Your task to perform on an android device: Show me productivity apps on the Play Store Image 0: 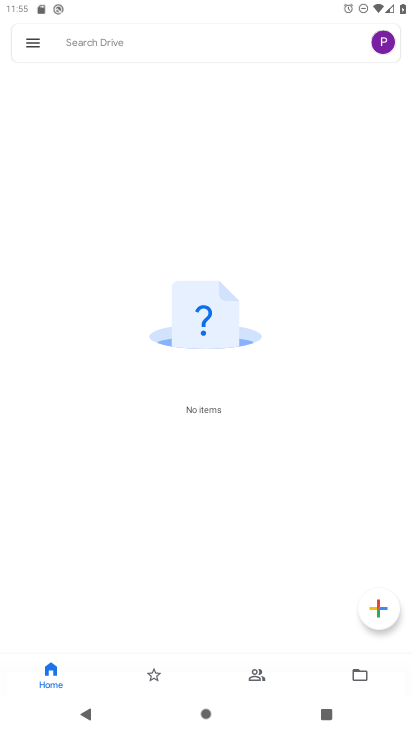
Step 0: press home button
Your task to perform on an android device: Show me productivity apps on the Play Store Image 1: 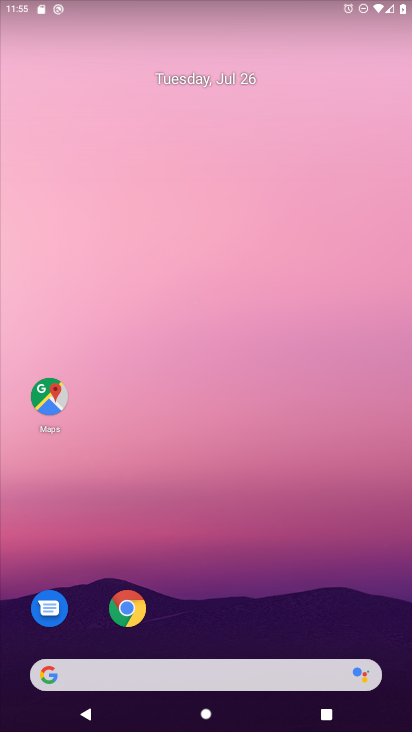
Step 1: drag from (281, 611) to (274, 63)
Your task to perform on an android device: Show me productivity apps on the Play Store Image 2: 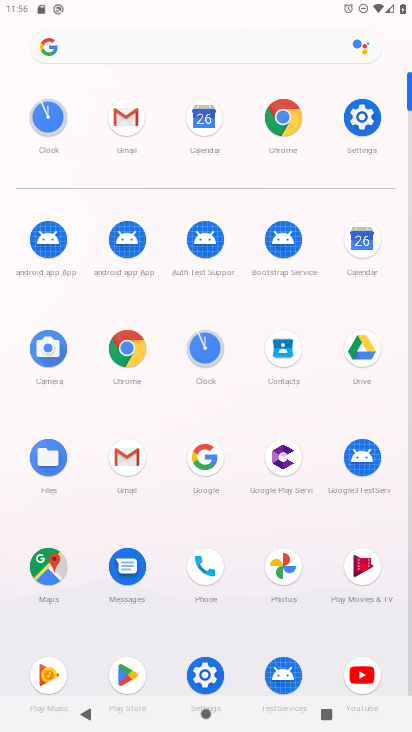
Step 2: click (127, 676)
Your task to perform on an android device: Show me productivity apps on the Play Store Image 3: 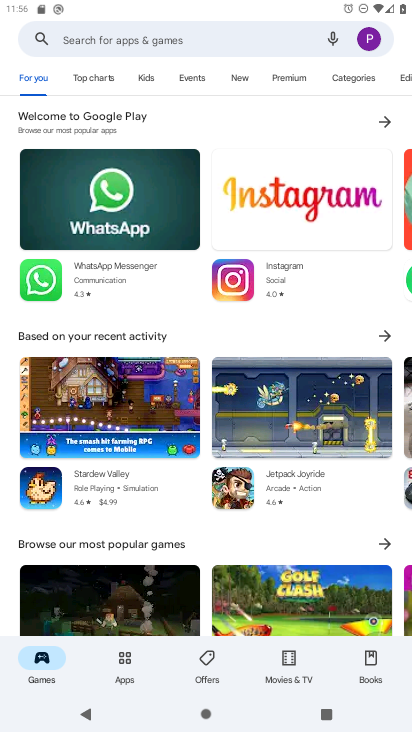
Step 3: click (129, 667)
Your task to perform on an android device: Show me productivity apps on the Play Store Image 4: 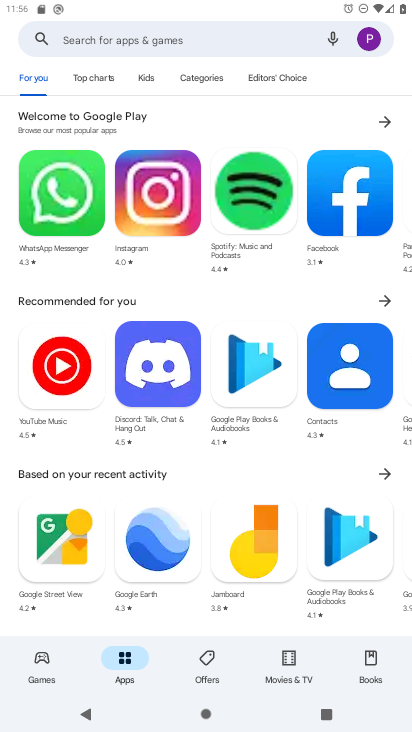
Step 4: task complete